Your task to perform on an android device: check the backup settings in the google photos Image 0: 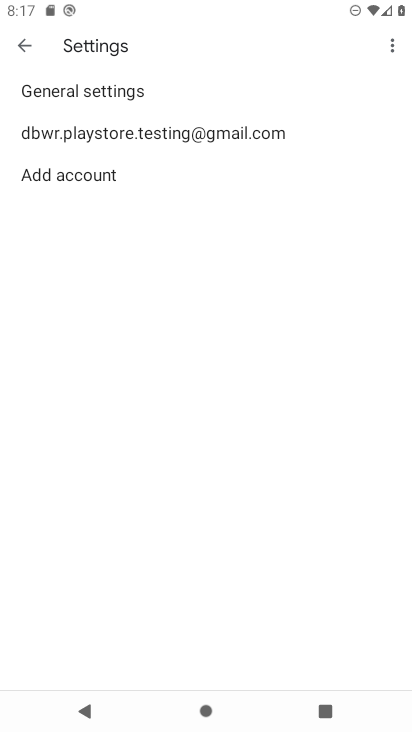
Step 0: press home button
Your task to perform on an android device: check the backup settings in the google photos Image 1: 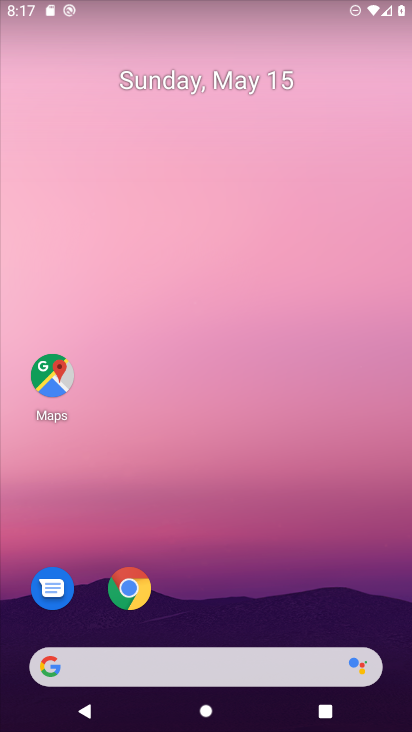
Step 1: drag from (203, 632) to (231, 168)
Your task to perform on an android device: check the backup settings in the google photos Image 2: 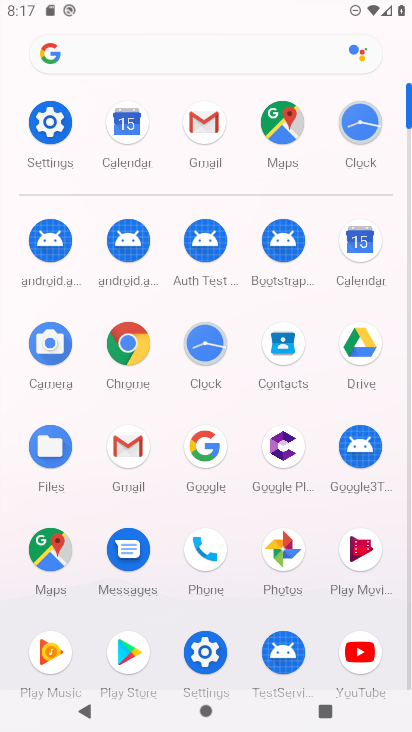
Step 2: click (281, 543)
Your task to perform on an android device: check the backup settings in the google photos Image 3: 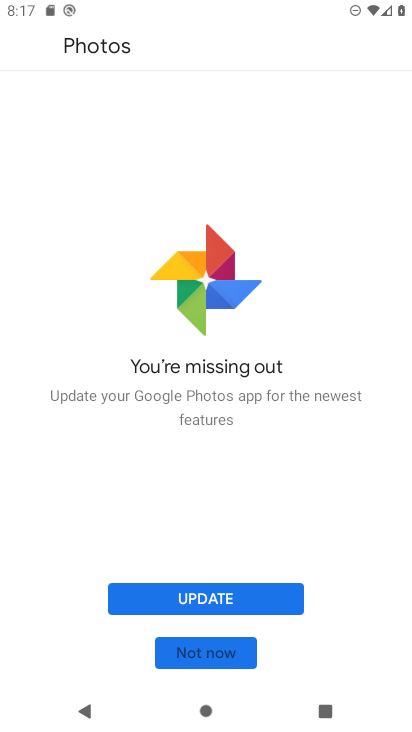
Step 3: click (201, 596)
Your task to perform on an android device: check the backup settings in the google photos Image 4: 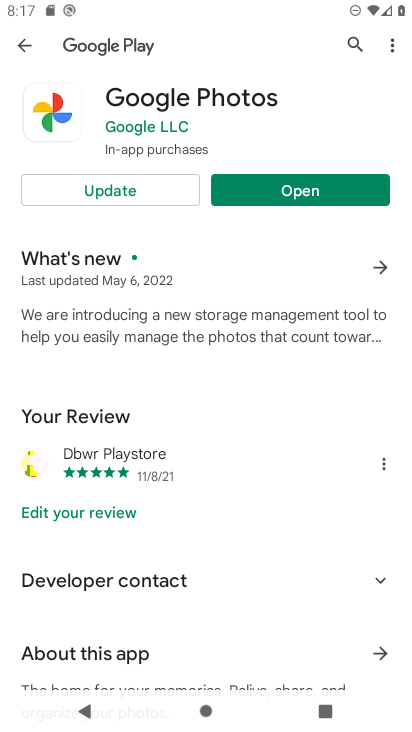
Step 4: click (101, 186)
Your task to perform on an android device: check the backup settings in the google photos Image 5: 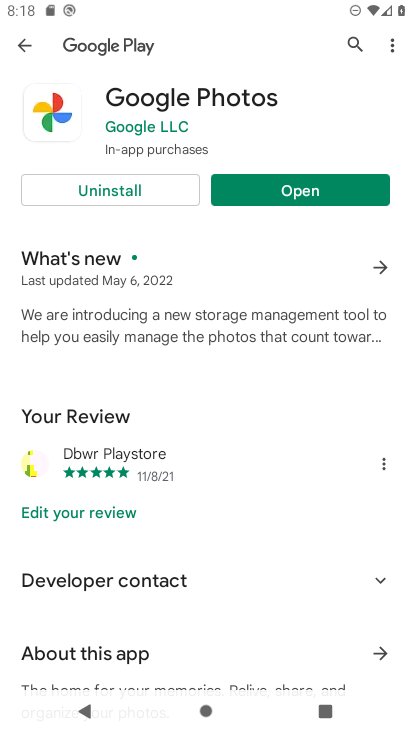
Step 5: click (308, 185)
Your task to perform on an android device: check the backup settings in the google photos Image 6: 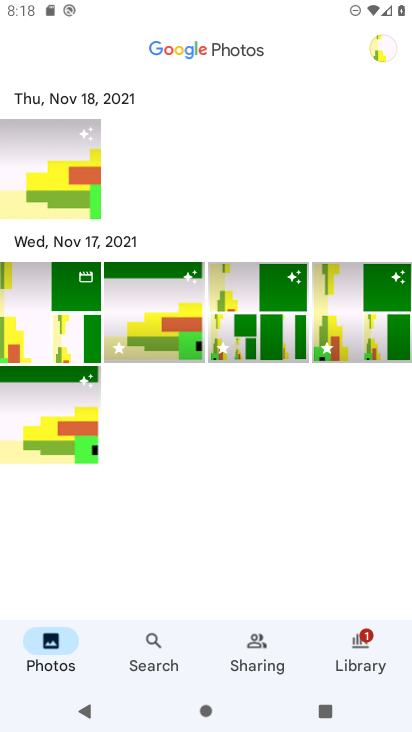
Step 6: click (362, 637)
Your task to perform on an android device: check the backup settings in the google photos Image 7: 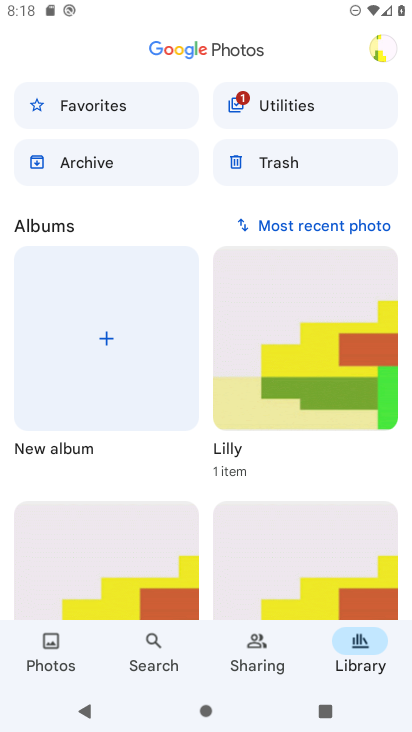
Step 7: click (372, 41)
Your task to perform on an android device: check the backup settings in the google photos Image 8: 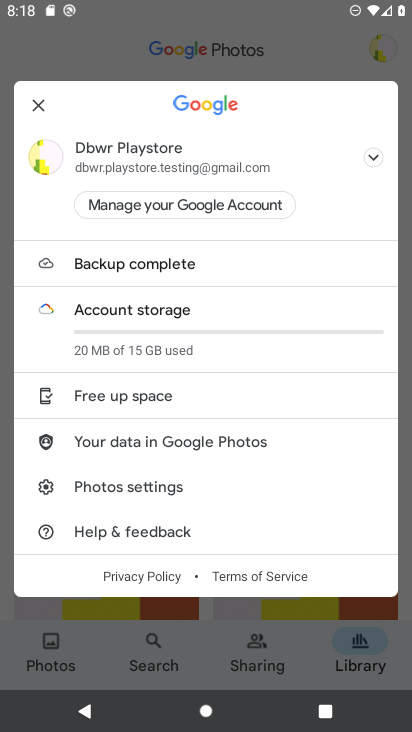
Step 8: click (116, 270)
Your task to perform on an android device: check the backup settings in the google photos Image 9: 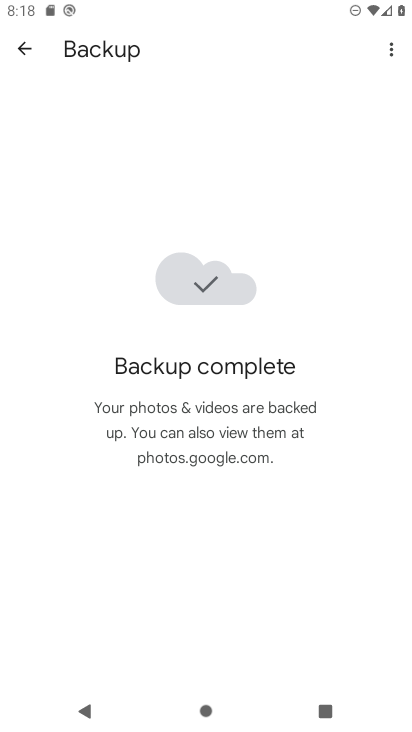
Step 9: click (390, 47)
Your task to perform on an android device: check the backup settings in the google photos Image 10: 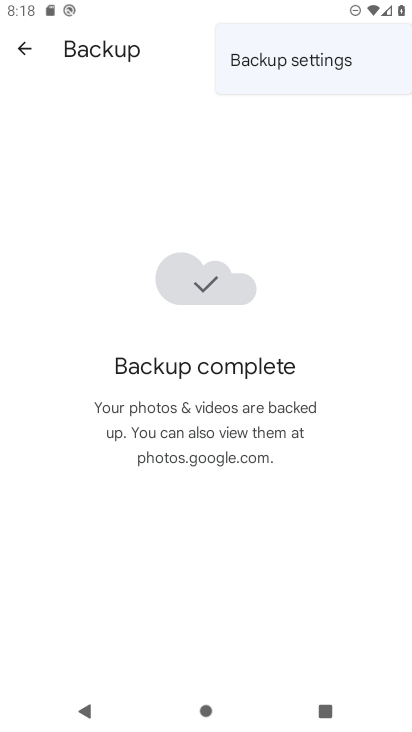
Step 10: click (282, 67)
Your task to perform on an android device: check the backup settings in the google photos Image 11: 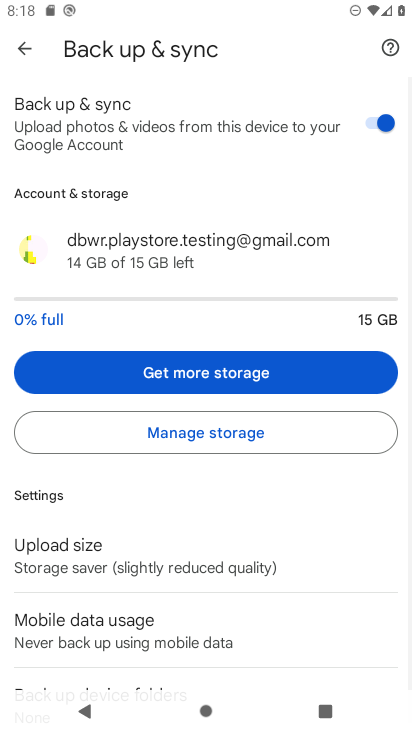
Step 11: task complete